Your task to perform on an android device: Open settings Image 0: 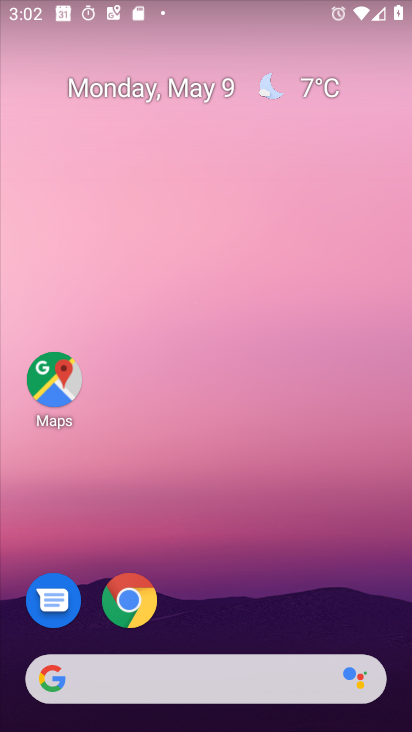
Step 0: drag from (155, 684) to (114, 203)
Your task to perform on an android device: Open settings Image 1: 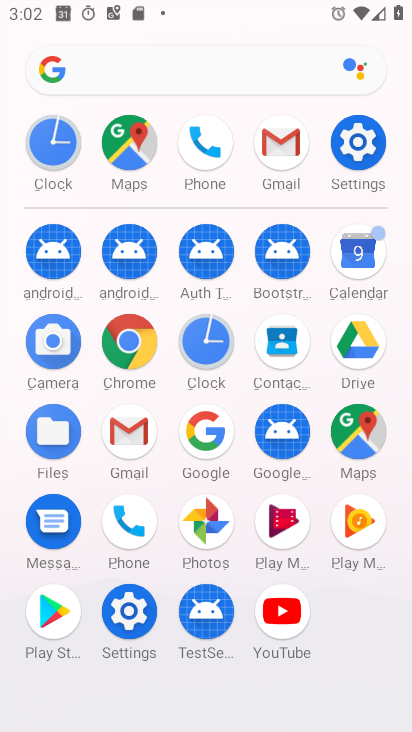
Step 1: click (340, 155)
Your task to perform on an android device: Open settings Image 2: 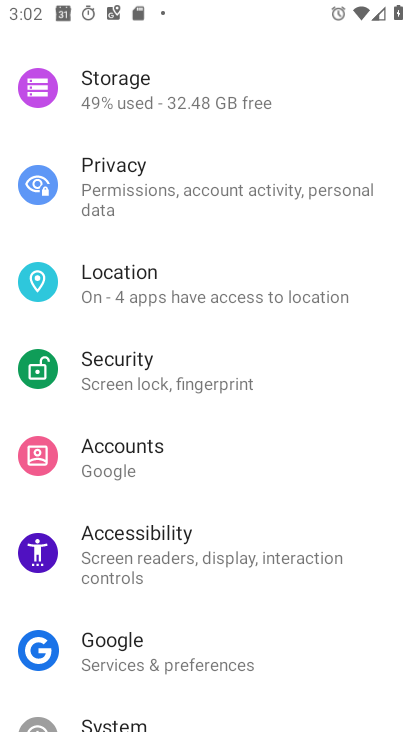
Step 2: task complete